Your task to perform on an android device: set the stopwatch Image 0: 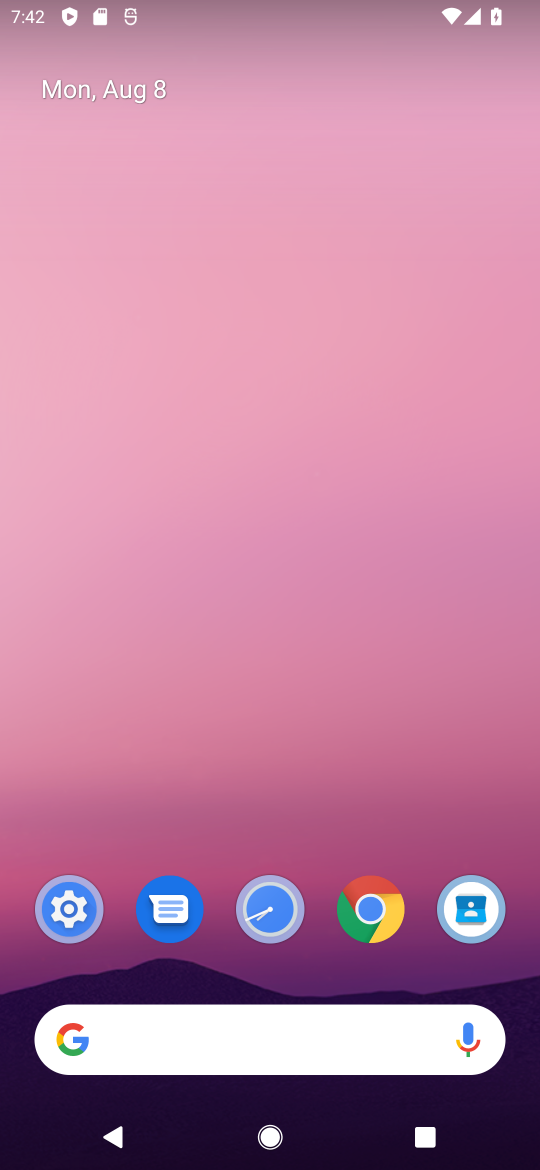
Step 0: drag from (222, 764) to (260, 109)
Your task to perform on an android device: set the stopwatch Image 1: 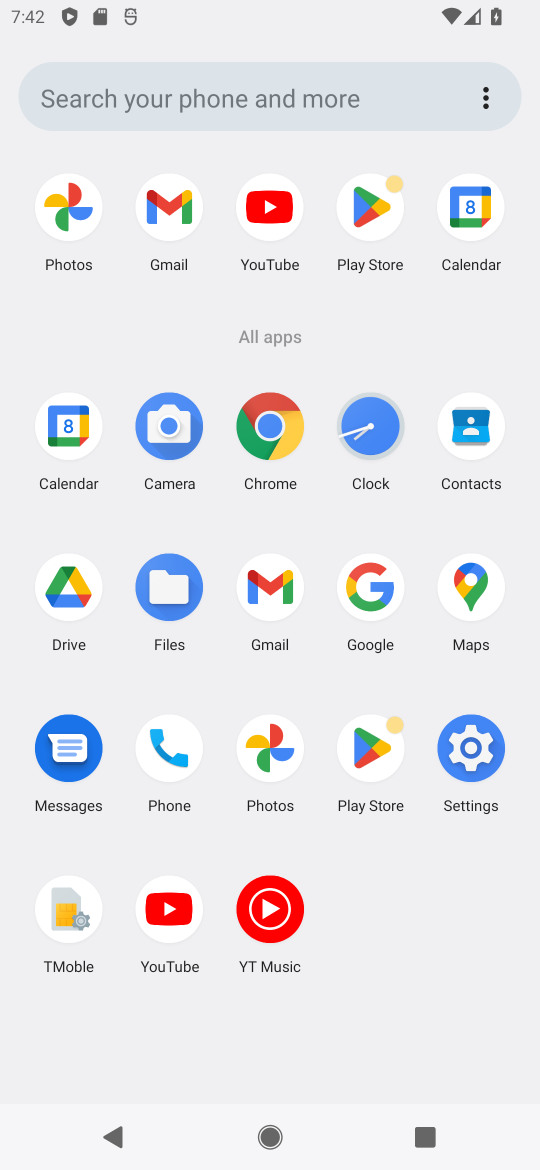
Step 1: click (382, 442)
Your task to perform on an android device: set the stopwatch Image 2: 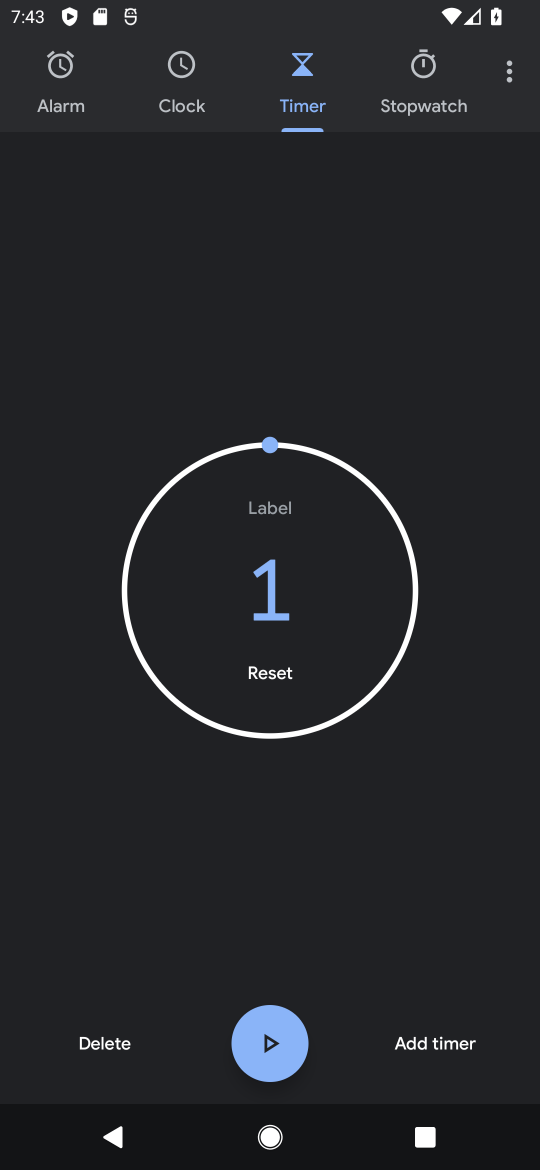
Step 2: click (417, 93)
Your task to perform on an android device: set the stopwatch Image 3: 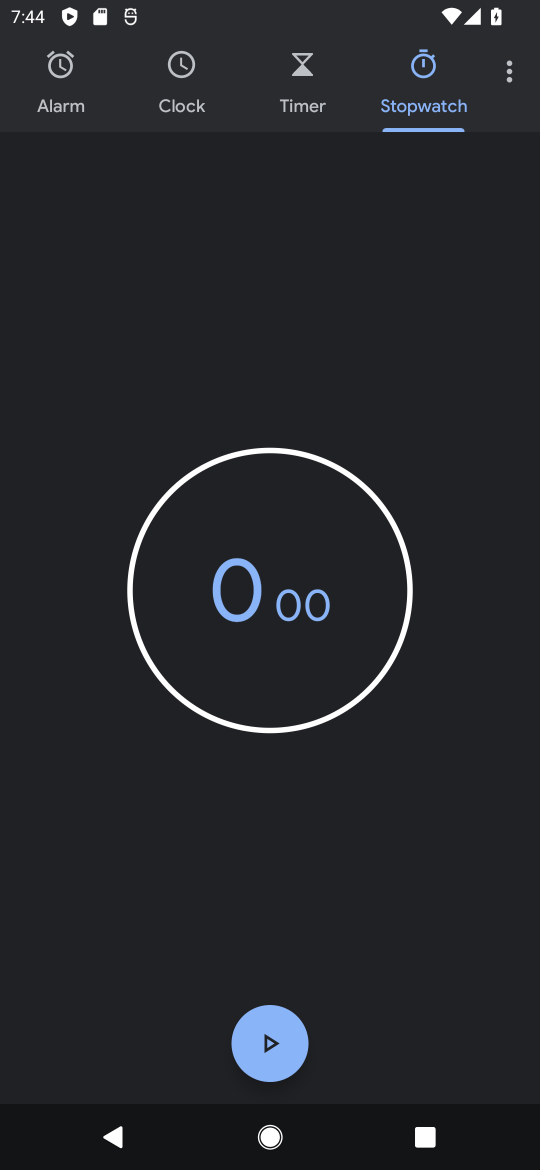
Step 3: click (260, 1051)
Your task to perform on an android device: set the stopwatch Image 4: 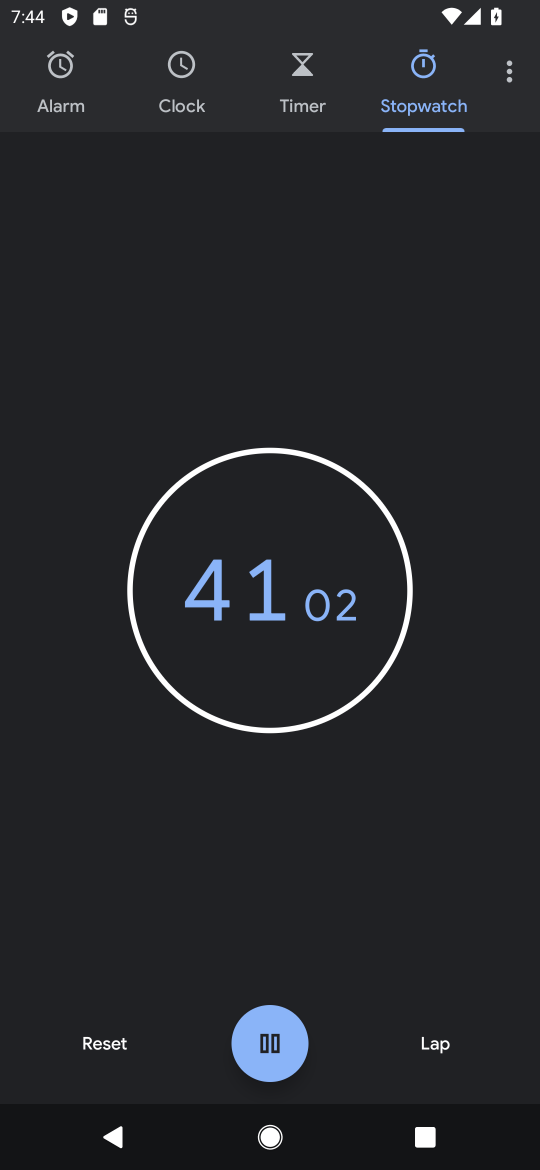
Step 4: task complete